Your task to perform on an android device: Open maps Image 0: 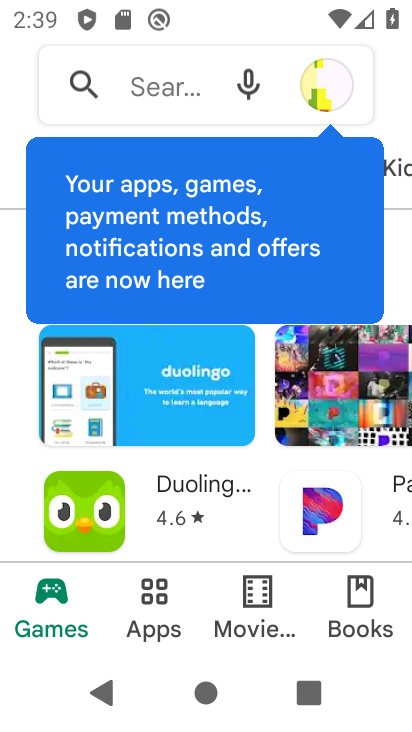
Step 0: press home button
Your task to perform on an android device: Open maps Image 1: 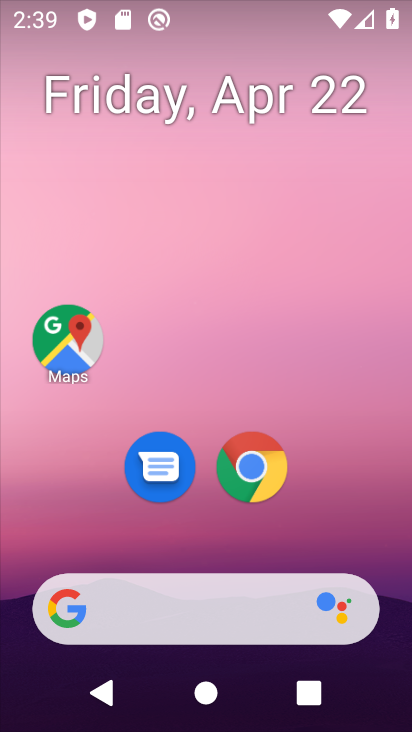
Step 1: click (69, 341)
Your task to perform on an android device: Open maps Image 2: 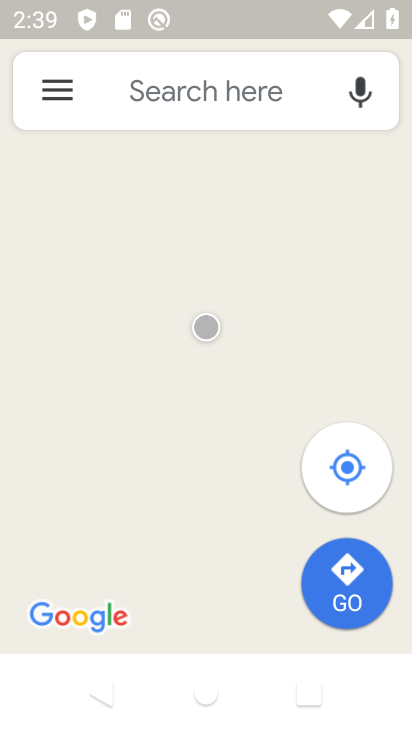
Step 2: task complete